Your task to perform on an android device: toggle data saver in the chrome app Image 0: 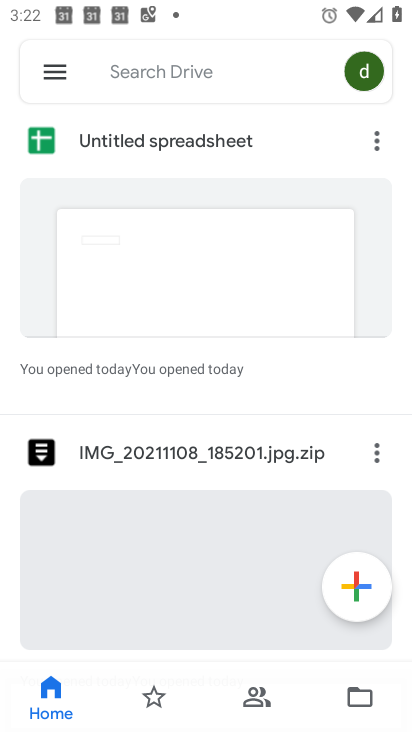
Step 0: press home button
Your task to perform on an android device: toggle data saver in the chrome app Image 1: 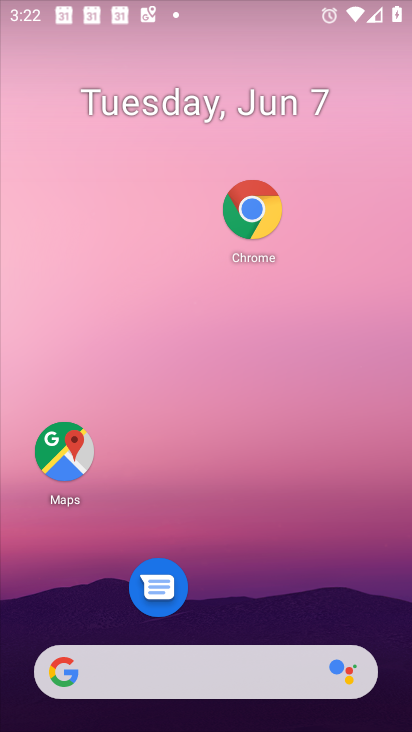
Step 1: click (226, 596)
Your task to perform on an android device: toggle data saver in the chrome app Image 2: 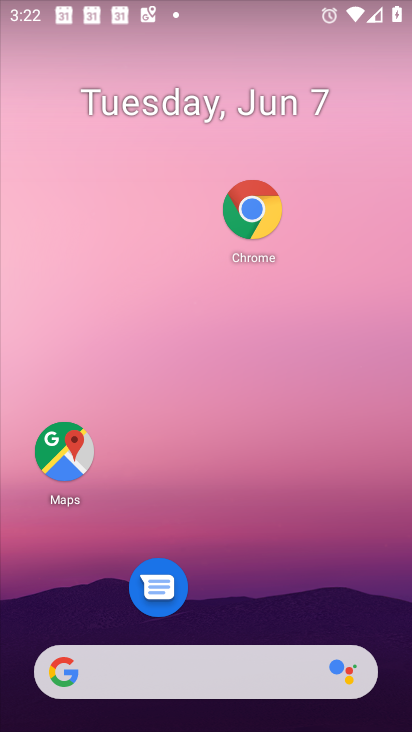
Step 2: drag from (269, 501) to (281, 310)
Your task to perform on an android device: toggle data saver in the chrome app Image 3: 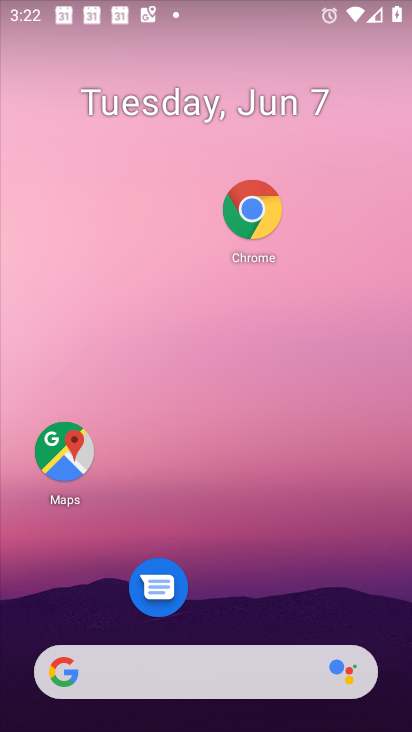
Step 3: drag from (249, 565) to (278, 138)
Your task to perform on an android device: toggle data saver in the chrome app Image 4: 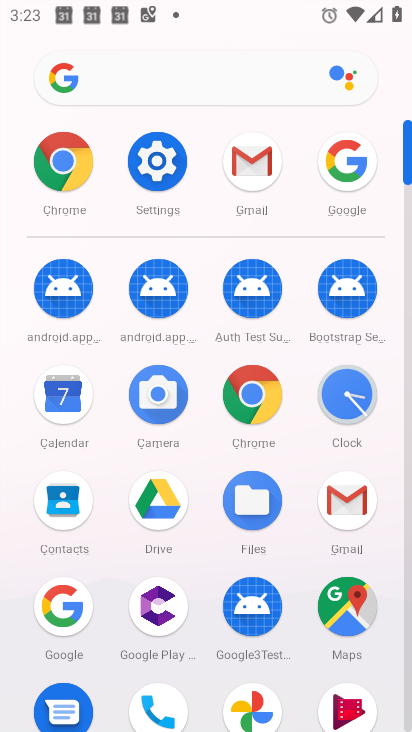
Step 4: click (66, 151)
Your task to perform on an android device: toggle data saver in the chrome app Image 5: 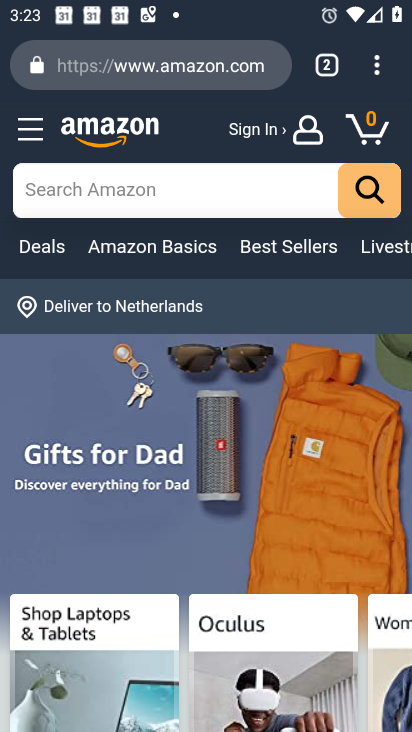
Step 5: click (391, 63)
Your task to perform on an android device: toggle data saver in the chrome app Image 6: 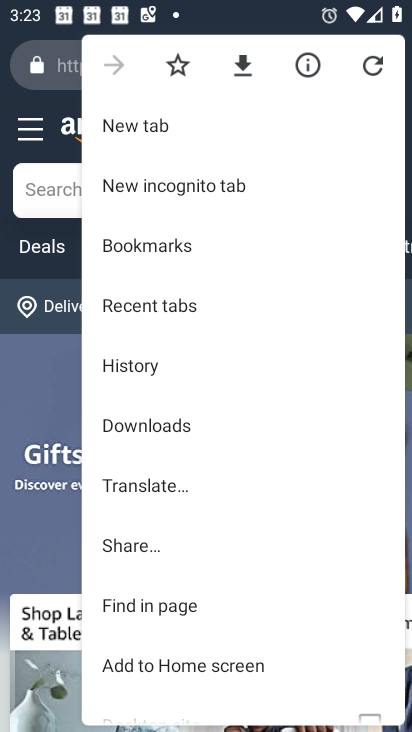
Step 6: drag from (229, 525) to (228, 25)
Your task to perform on an android device: toggle data saver in the chrome app Image 7: 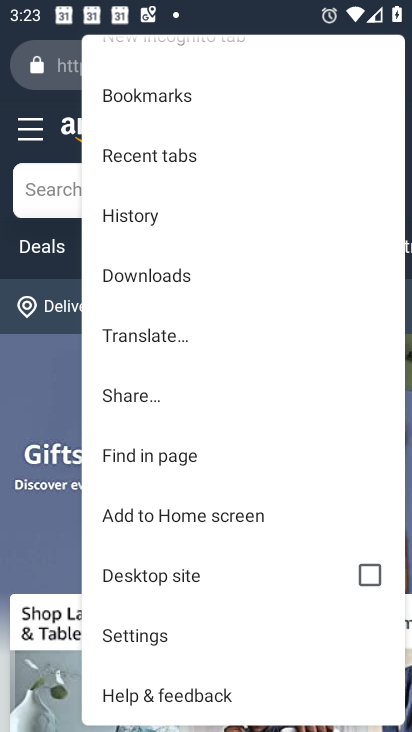
Step 7: click (158, 638)
Your task to perform on an android device: toggle data saver in the chrome app Image 8: 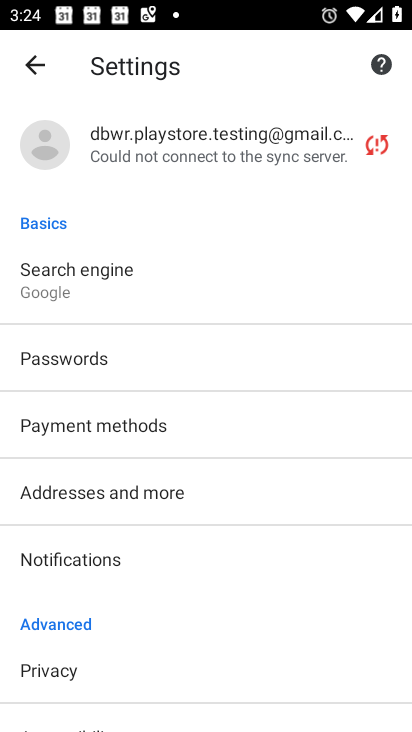
Step 8: drag from (158, 463) to (147, 167)
Your task to perform on an android device: toggle data saver in the chrome app Image 9: 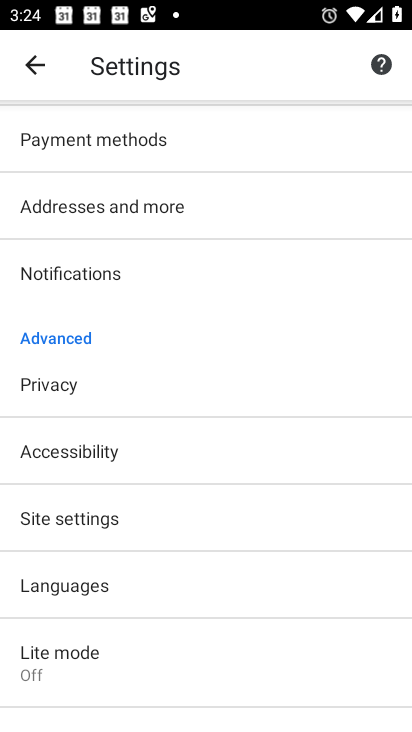
Step 9: click (118, 665)
Your task to perform on an android device: toggle data saver in the chrome app Image 10: 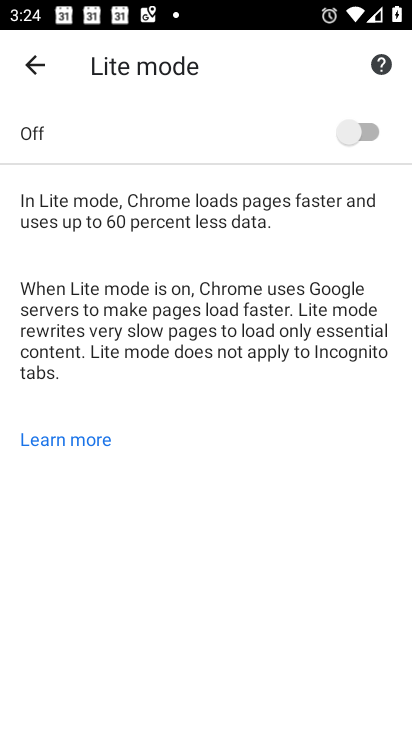
Step 10: click (360, 118)
Your task to perform on an android device: toggle data saver in the chrome app Image 11: 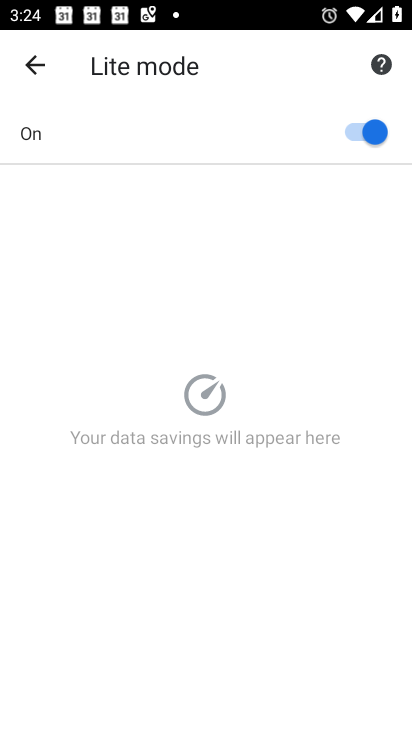
Step 11: task complete